Your task to perform on an android device: set default search engine in the chrome app Image 0: 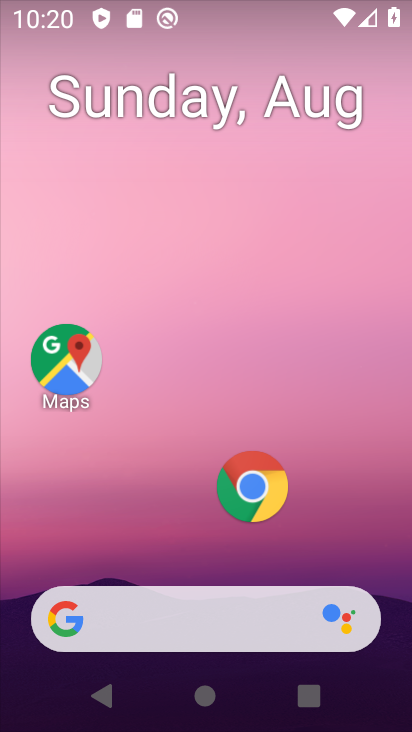
Step 0: click (264, 507)
Your task to perform on an android device: set default search engine in the chrome app Image 1: 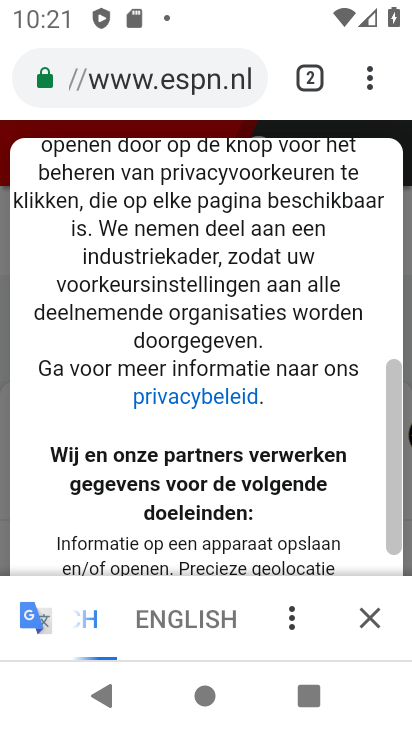
Step 1: click (367, 77)
Your task to perform on an android device: set default search engine in the chrome app Image 2: 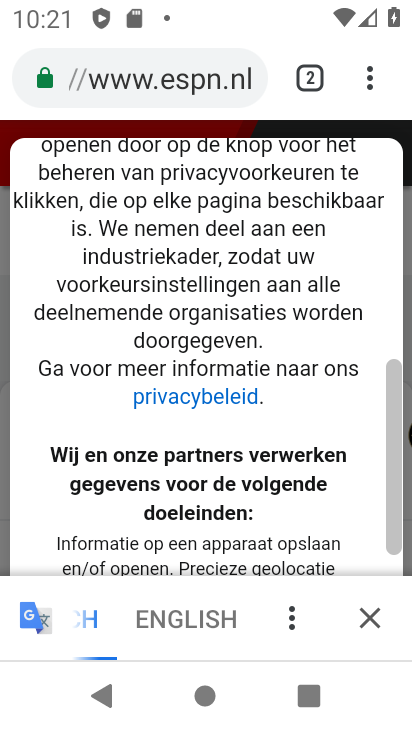
Step 2: click (367, 77)
Your task to perform on an android device: set default search engine in the chrome app Image 3: 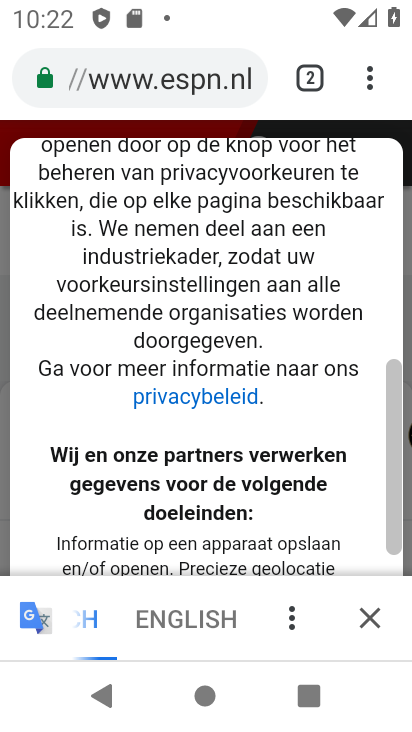
Step 3: click (372, 77)
Your task to perform on an android device: set default search engine in the chrome app Image 4: 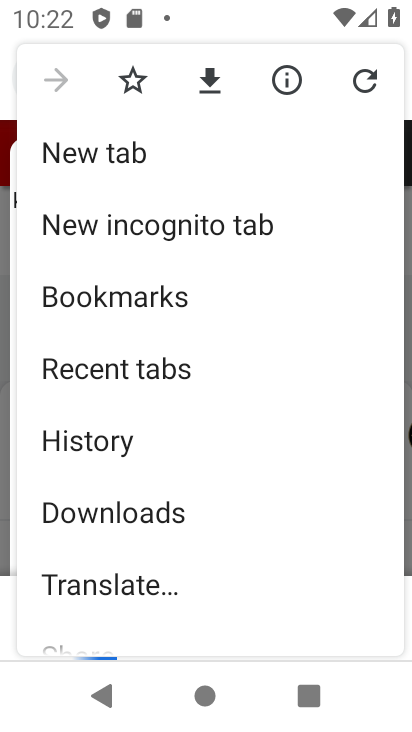
Step 4: drag from (163, 565) to (208, 153)
Your task to perform on an android device: set default search engine in the chrome app Image 5: 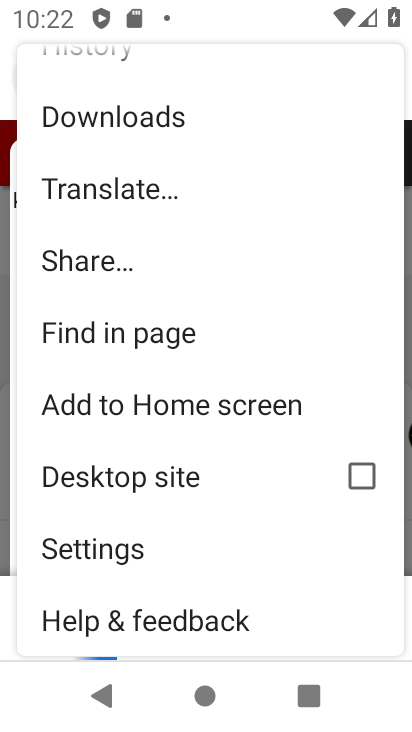
Step 5: click (134, 557)
Your task to perform on an android device: set default search engine in the chrome app Image 6: 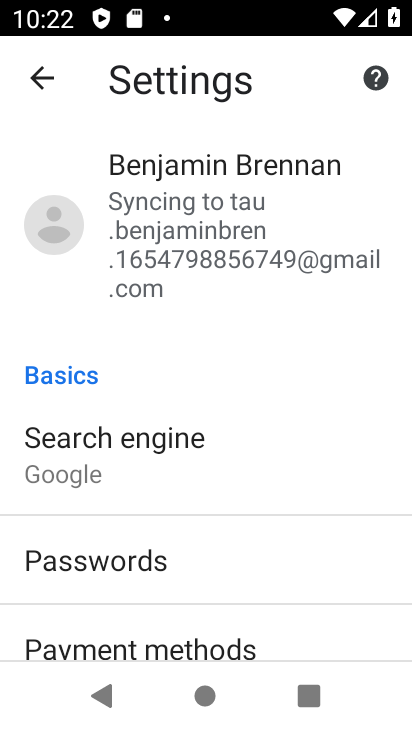
Step 6: click (132, 481)
Your task to perform on an android device: set default search engine in the chrome app Image 7: 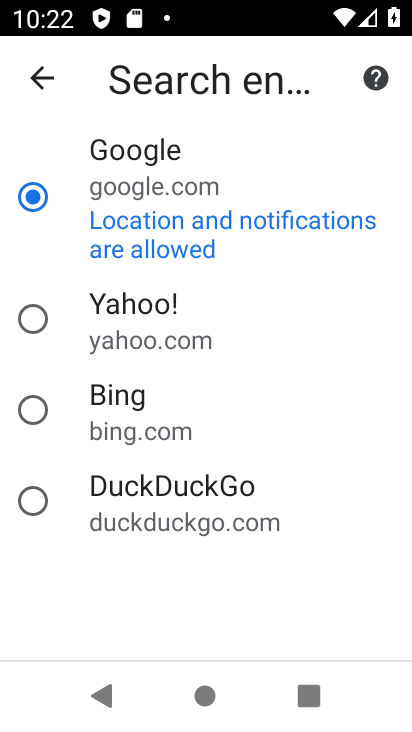
Step 7: task complete